Your task to perform on an android device: change the clock display to analog Image 0: 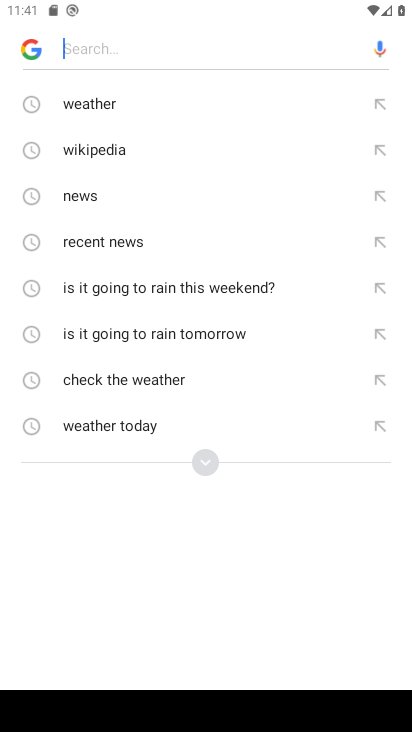
Step 0: press back button
Your task to perform on an android device: change the clock display to analog Image 1: 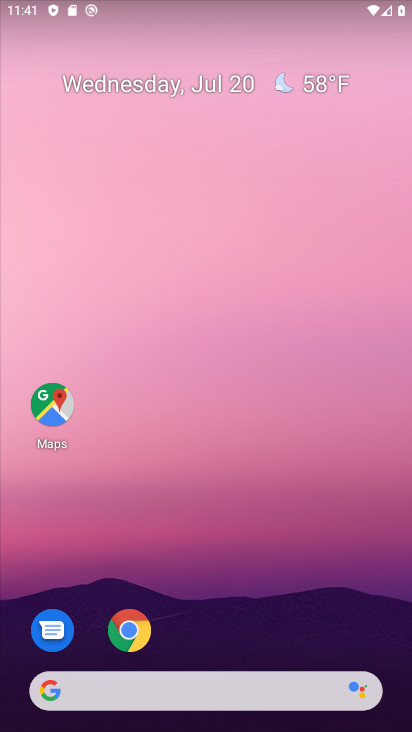
Step 1: drag from (256, 108) to (262, 31)
Your task to perform on an android device: change the clock display to analog Image 2: 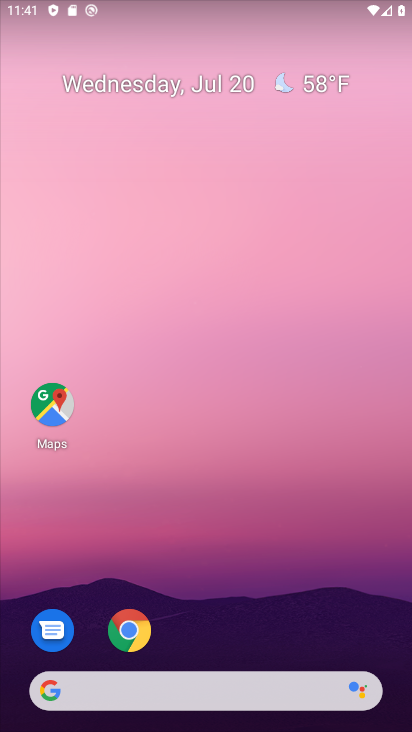
Step 2: drag from (193, 680) to (225, 128)
Your task to perform on an android device: change the clock display to analog Image 3: 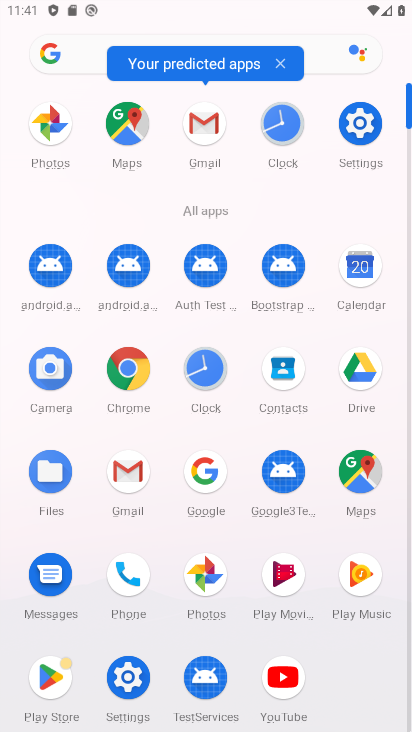
Step 3: click (200, 371)
Your task to perform on an android device: change the clock display to analog Image 4: 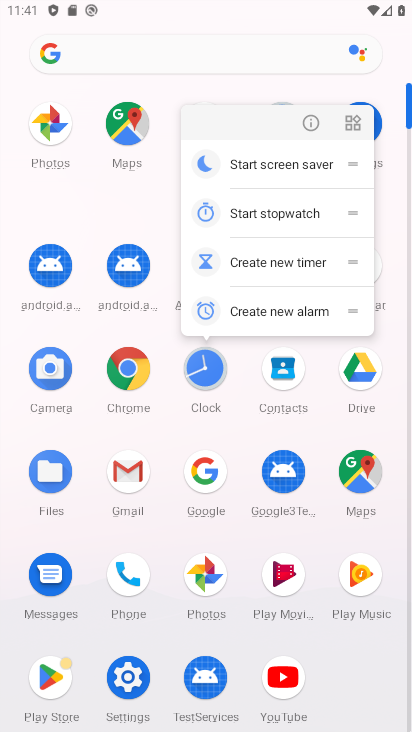
Step 4: click (213, 381)
Your task to perform on an android device: change the clock display to analog Image 5: 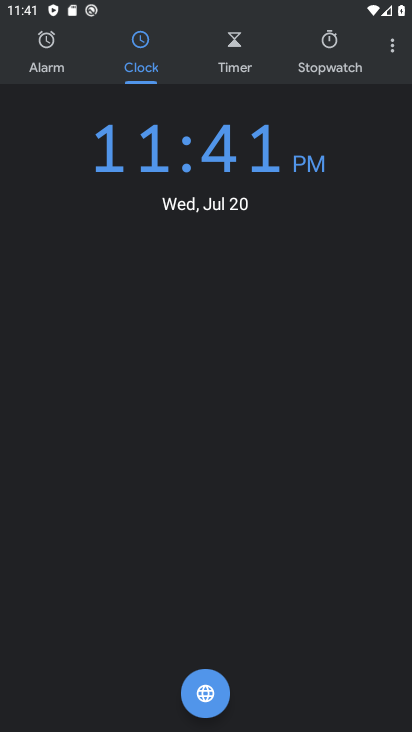
Step 5: click (396, 44)
Your task to perform on an android device: change the clock display to analog Image 6: 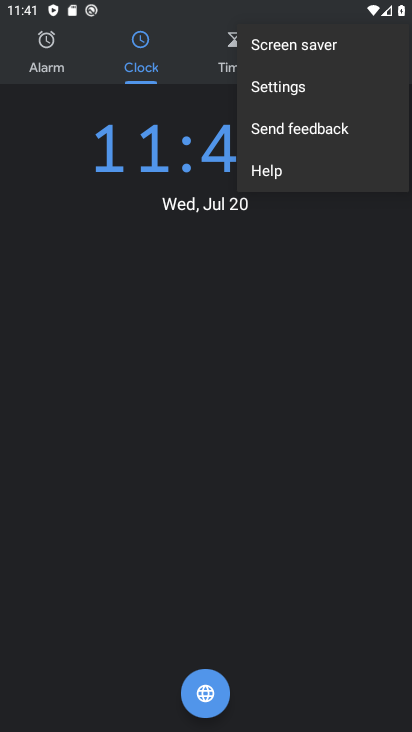
Step 6: click (339, 83)
Your task to perform on an android device: change the clock display to analog Image 7: 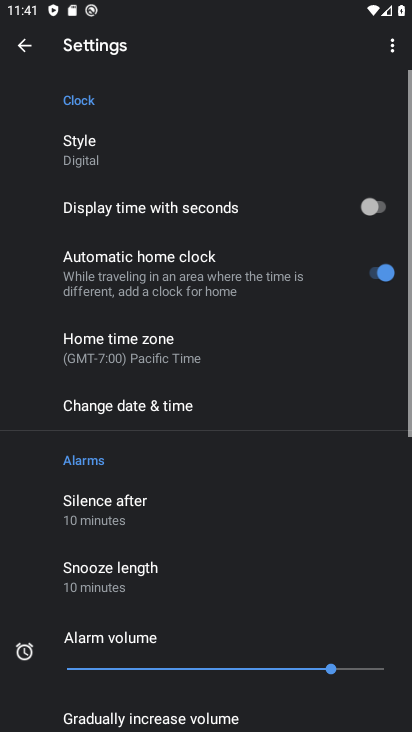
Step 7: click (123, 150)
Your task to perform on an android device: change the clock display to analog Image 8: 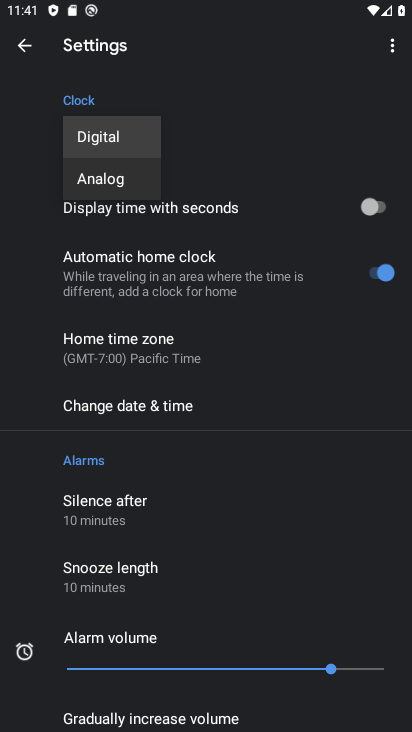
Step 8: click (130, 181)
Your task to perform on an android device: change the clock display to analog Image 9: 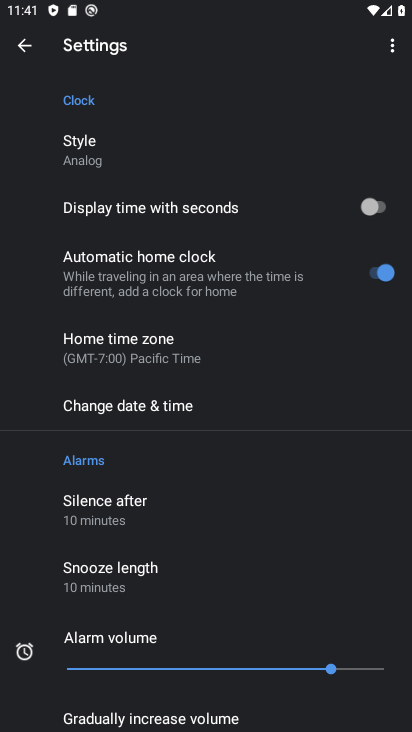
Step 9: task complete